Your task to perform on an android device: open app "Google Sheets" (install if not already installed) Image 0: 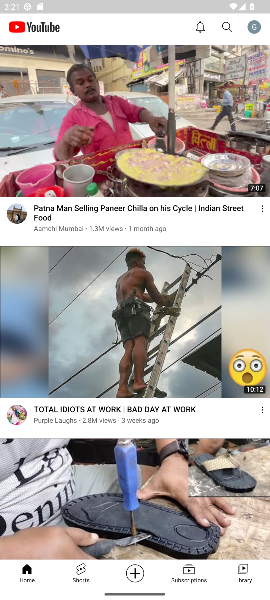
Step 0: press home button
Your task to perform on an android device: open app "Google Sheets" (install if not already installed) Image 1: 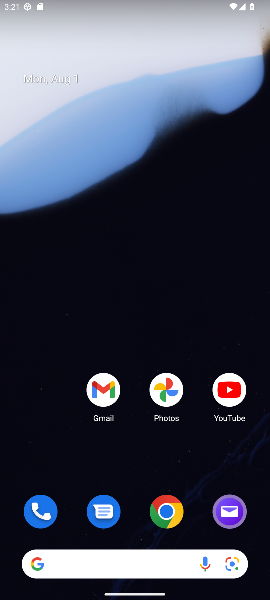
Step 1: drag from (133, 491) to (195, 65)
Your task to perform on an android device: open app "Google Sheets" (install if not already installed) Image 2: 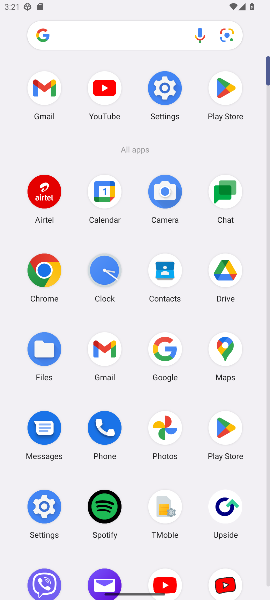
Step 2: click (223, 90)
Your task to perform on an android device: open app "Google Sheets" (install if not already installed) Image 3: 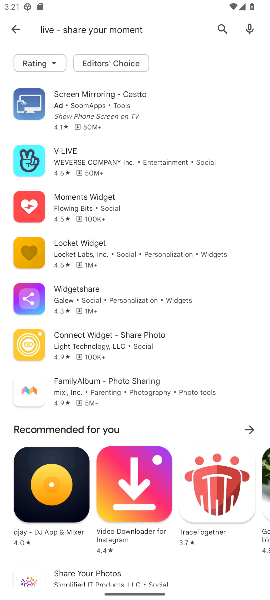
Step 3: click (11, 26)
Your task to perform on an android device: open app "Google Sheets" (install if not already installed) Image 4: 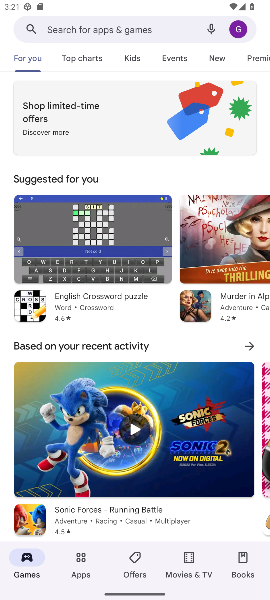
Step 4: click (130, 26)
Your task to perform on an android device: open app "Google Sheets" (install if not already installed) Image 5: 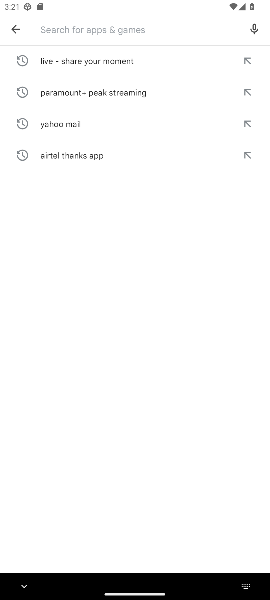
Step 5: type "Google Sheets"
Your task to perform on an android device: open app "Google Sheets" (install if not already installed) Image 6: 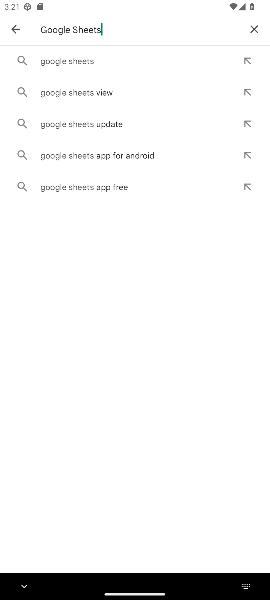
Step 6: click (64, 65)
Your task to perform on an android device: open app "Google Sheets" (install if not already installed) Image 7: 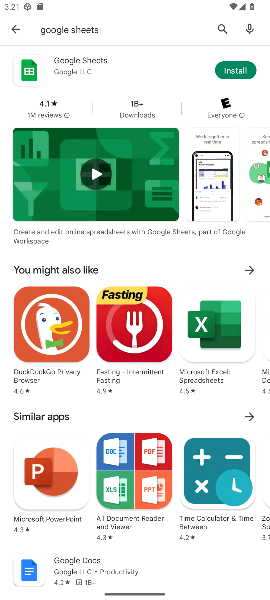
Step 7: click (232, 70)
Your task to perform on an android device: open app "Google Sheets" (install if not already installed) Image 8: 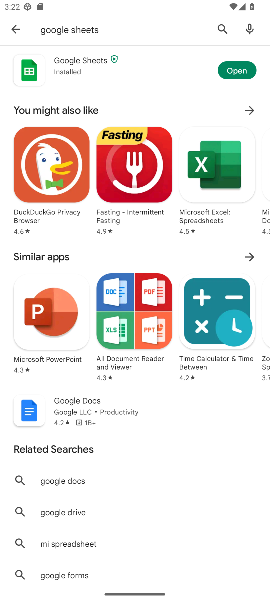
Step 8: click (233, 66)
Your task to perform on an android device: open app "Google Sheets" (install if not already installed) Image 9: 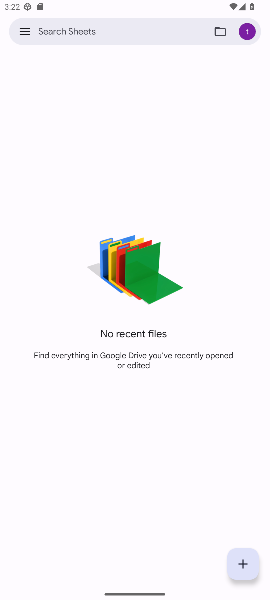
Step 9: task complete